Your task to perform on an android device: Go to internet settings Image 0: 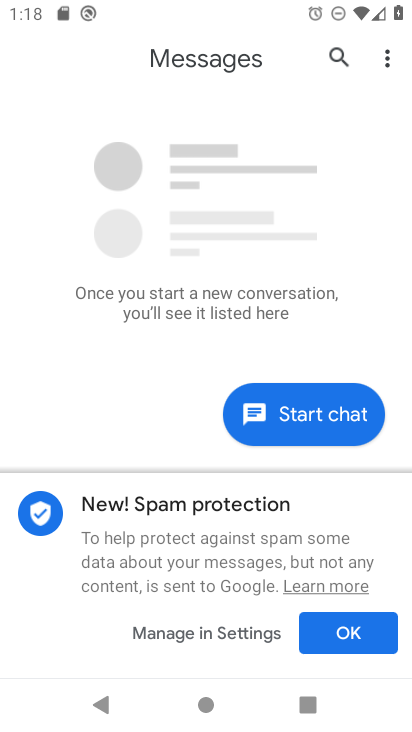
Step 0: press home button
Your task to perform on an android device: Go to internet settings Image 1: 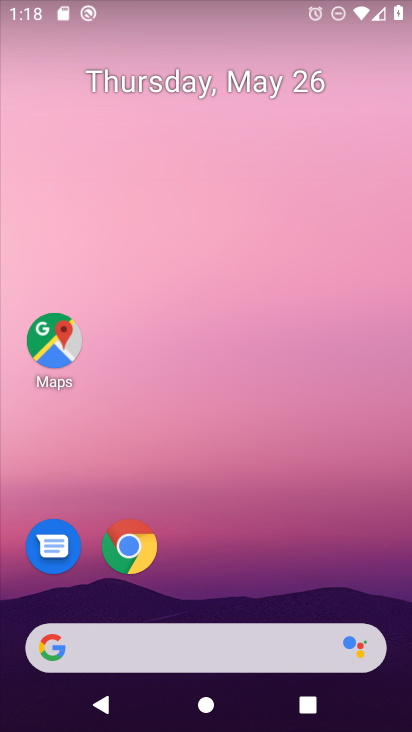
Step 1: drag from (160, 626) to (244, 9)
Your task to perform on an android device: Go to internet settings Image 2: 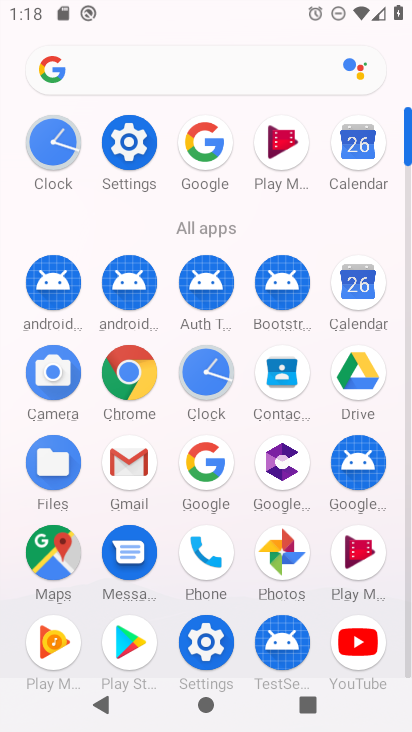
Step 2: click (119, 153)
Your task to perform on an android device: Go to internet settings Image 3: 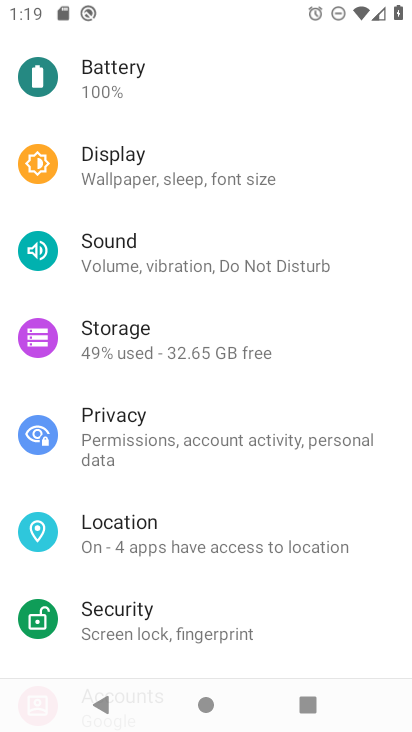
Step 3: drag from (117, 159) to (297, 669)
Your task to perform on an android device: Go to internet settings Image 4: 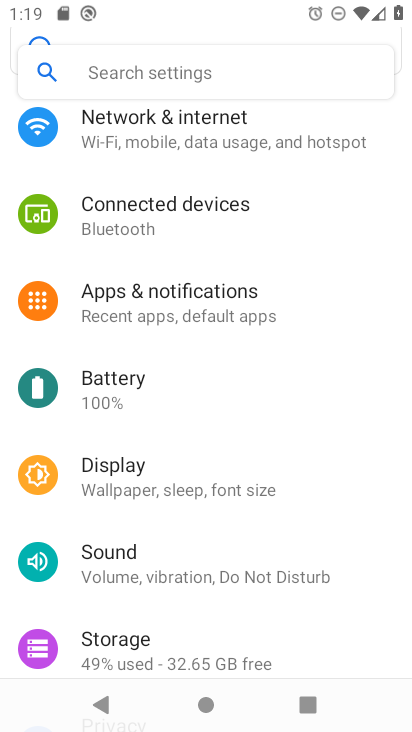
Step 4: click (229, 128)
Your task to perform on an android device: Go to internet settings Image 5: 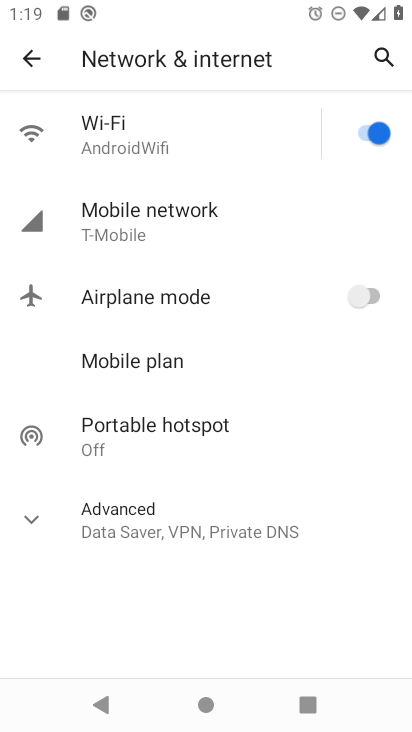
Step 5: click (199, 519)
Your task to perform on an android device: Go to internet settings Image 6: 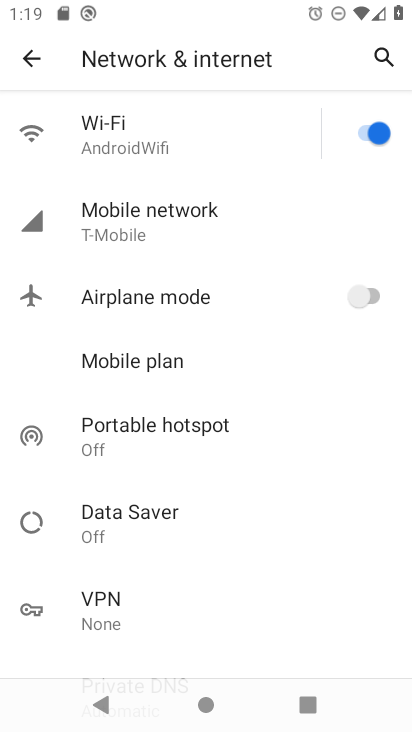
Step 6: task complete